Your task to perform on an android device: What's the news in Malaysia? Image 0: 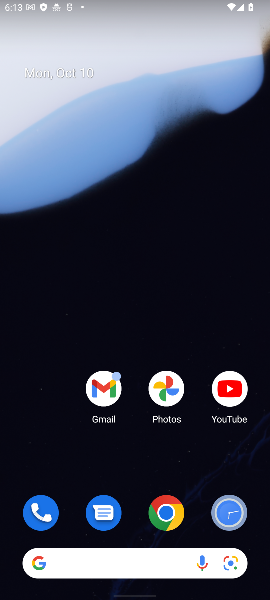
Step 0: press home button
Your task to perform on an android device: What's the news in Malaysia? Image 1: 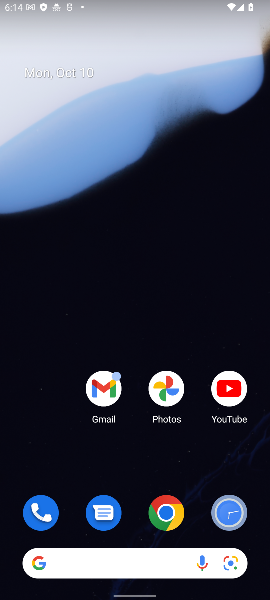
Step 1: click (151, 567)
Your task to perform on an android device: What's the news in Malaysia? Image 2: 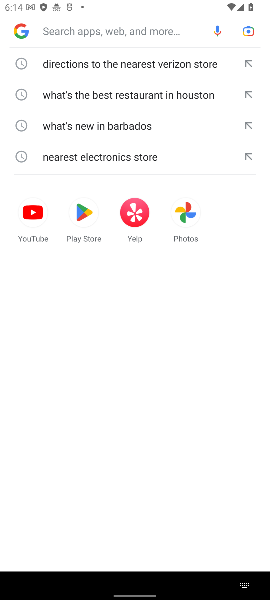
Step 2: type "the news in Malaysia"
Your task to perform on an android device: What's the news in Malaysia? Image 3: 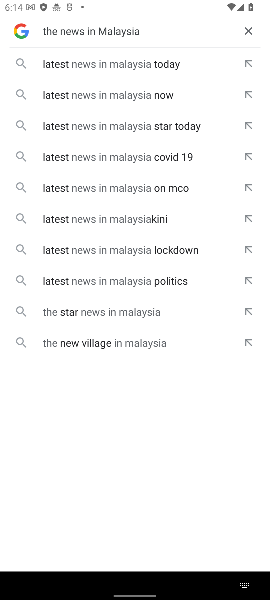
Step 3: click (119, 53)
Your task to perform on an android device: What's the news in Malaysia? Image 4: 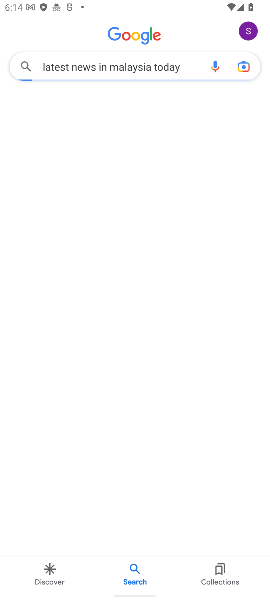
Step 4: task complete